Your task to perform on an android device: Clear all items from cart on costco.com. Add "logitech g502" to the cart on costco.com Image 0: 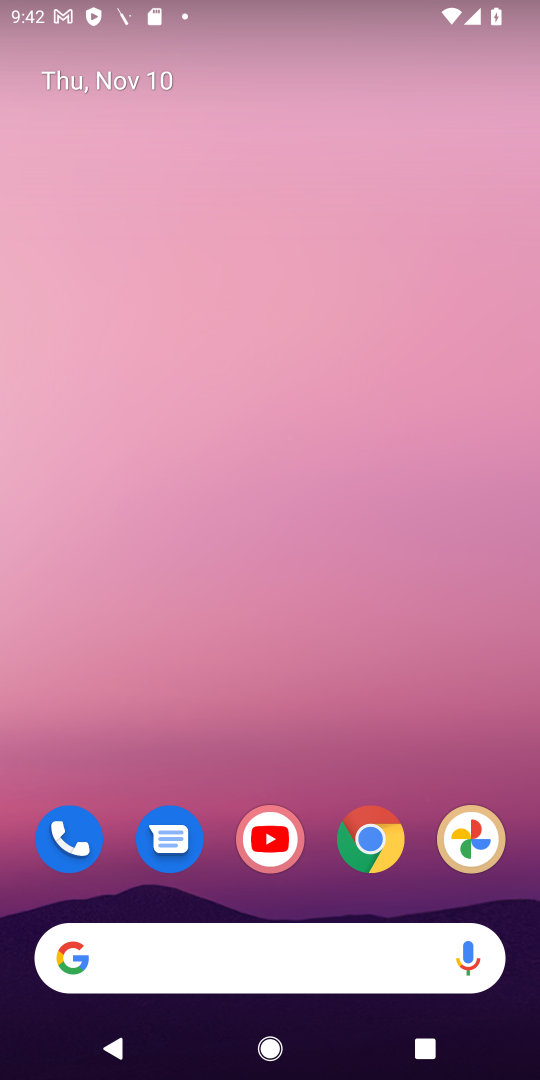
Step 0: click (374, 852)
Your task to perform on an android device: Clear all items from cart on costco.com. Add "logitech g502" to the cart on costco.com Image 1: 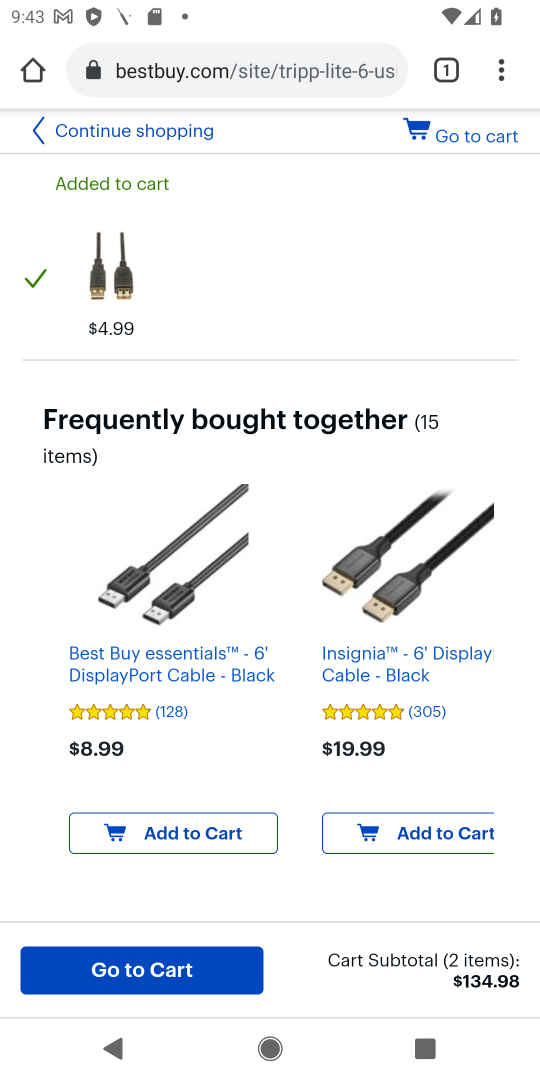
Step 1: click (286, 70)
Your task to perform on an android device: Clear all items from cart on costco.com. Add "logitech g502" to the cart on costco.com Image 2: 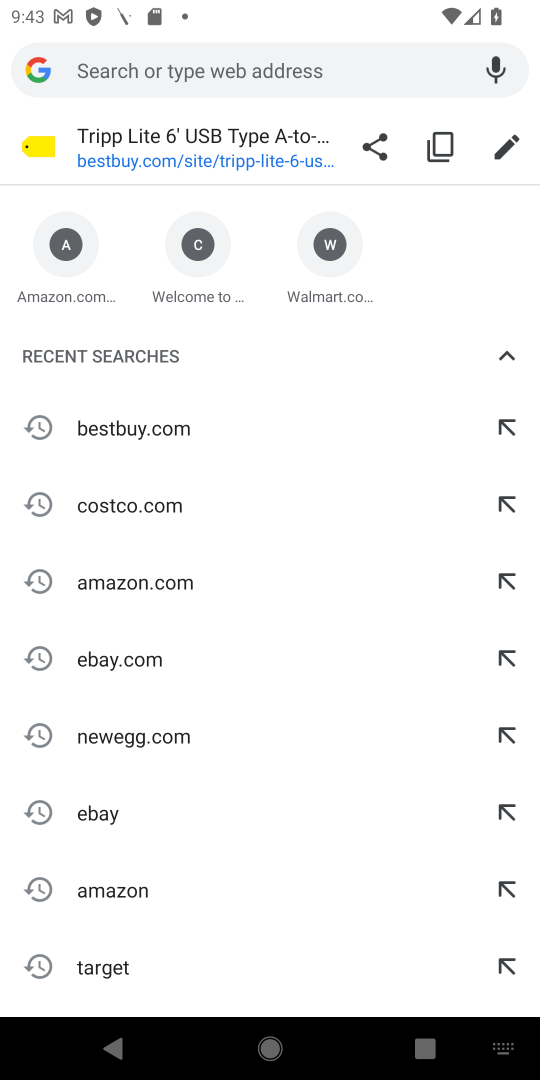
Step 2: click (147, 505)
Your task to perform on an android device: Clear all items from cart on costco.com. Add "logitech g502" to the cart on costco.com Image 3: 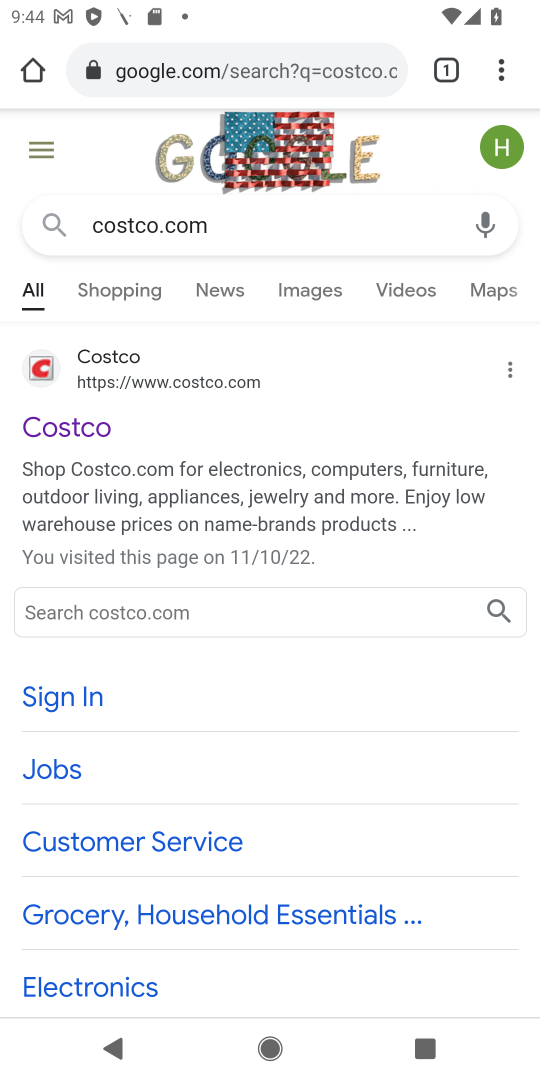
Step 3: click (193, 376)
Your task to perform on an android device: Clear all items from cart on costco.com. Add "logitech g502" to the cart on costco.com Image 4: 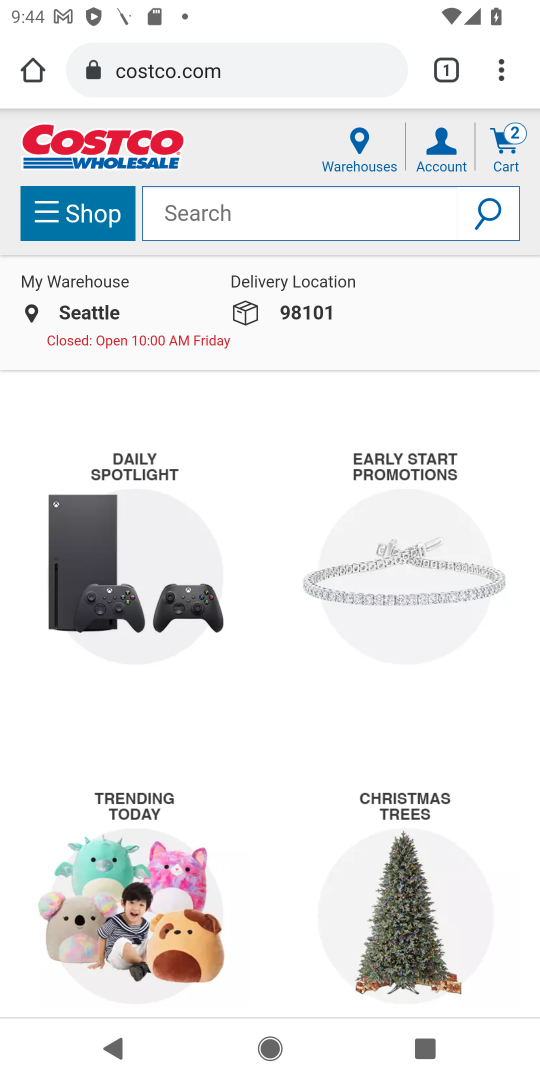
Step 4: click (504, 155)
Your task to perform on an android device: Clear all items from cart on costco.com. Add "logitech g502" to the cart on costco.com Image 5: 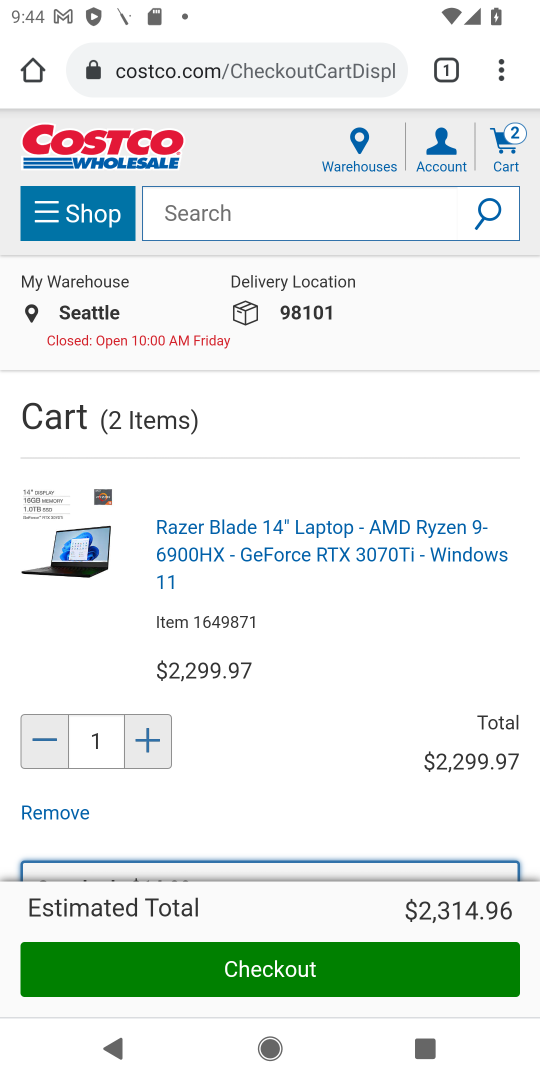
Step 5: click (40, 749)
Your task to perform on an android device: Clear all items from cart on costco.com. Add "logitech g502" to the cart on costco.com Image 6: 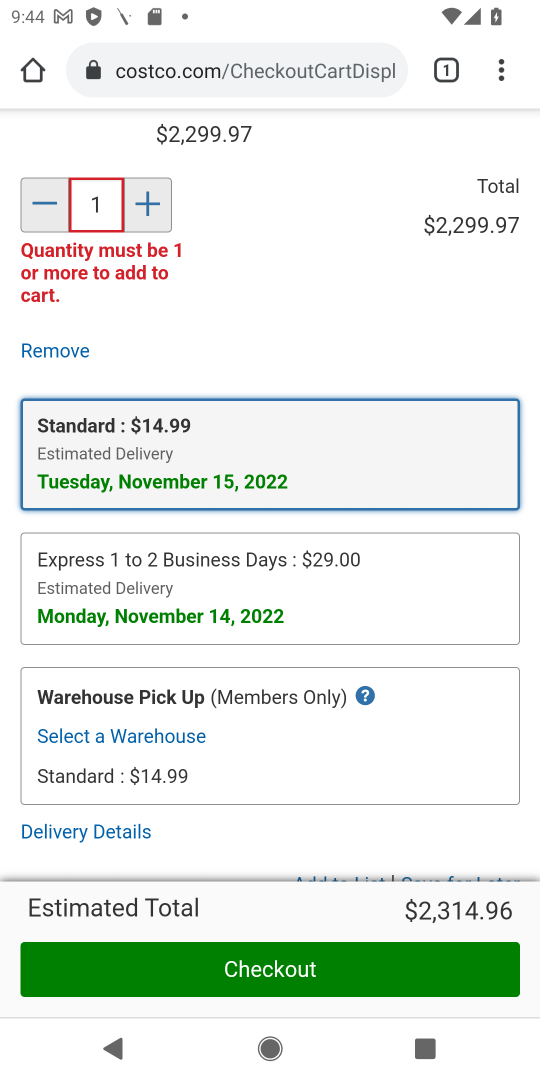
Step 6: drag from (330, 795) to (318, 900)
Your task to perform on an android device: Clear all items from cart on costco.com. Add "logitech g502" to the cart on costco.com Image 7: 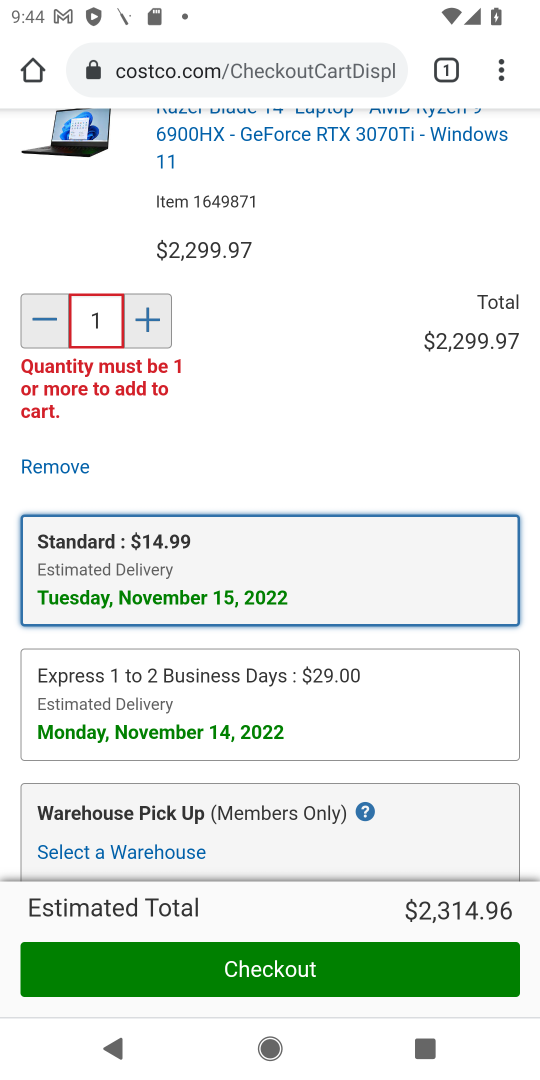
Step 7: click (65, 468)
Your task to perform on an android device: Clear all items from cart on costco.com. Add "logitech g502" to the cart on costco.com Image 8: 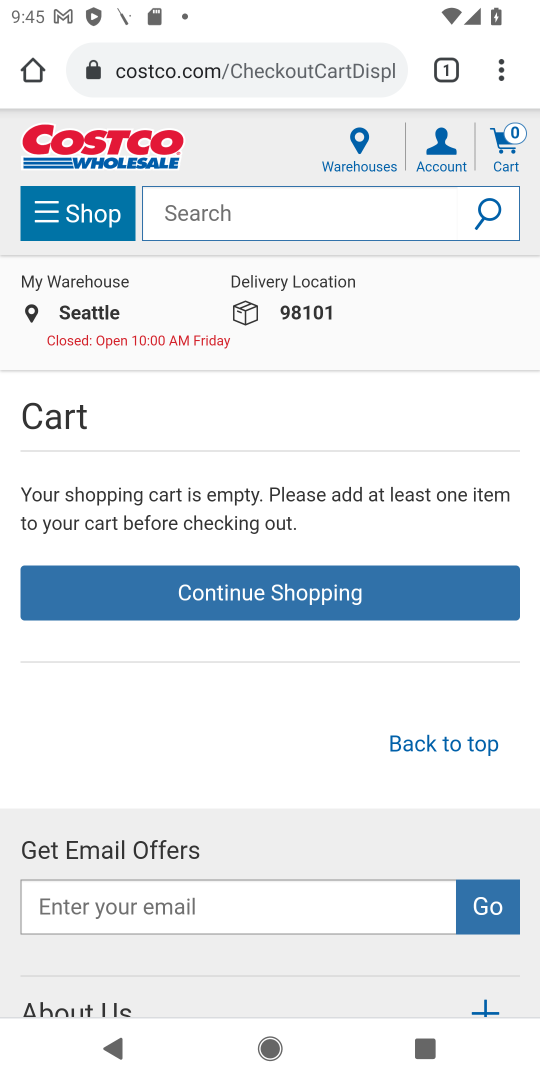
Step 8: click (258, 221)
Your task to perform on an android device: Clear all items from cart on costco.com. Add "logitech g502" to the cart on costco.com Image 9: 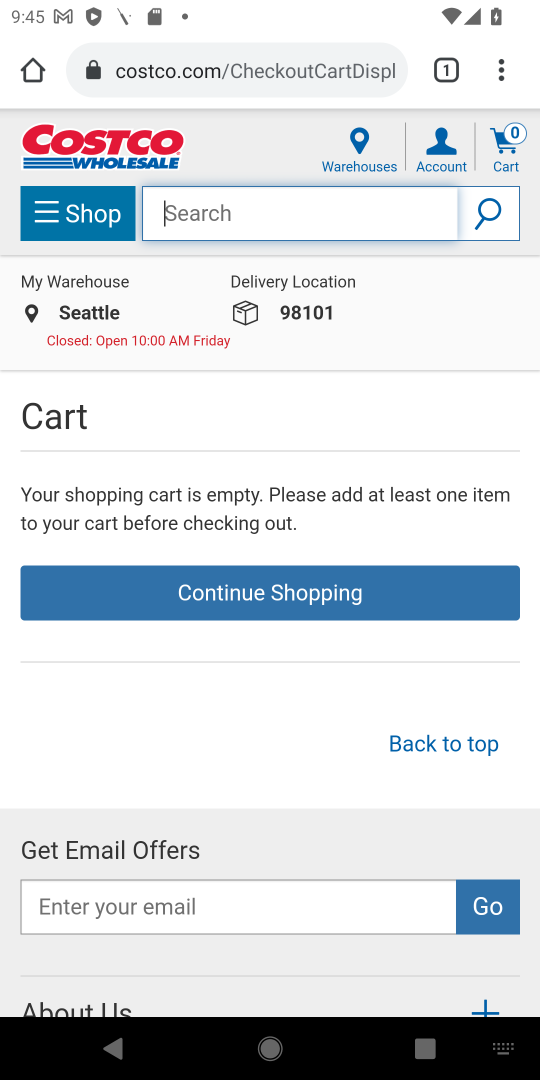
Step 9: type "logitech g502"
Your task to perform on an android device: Clear all items from cart on costco.com. Add "logitech g502" to the cart on costco.com Image 10: 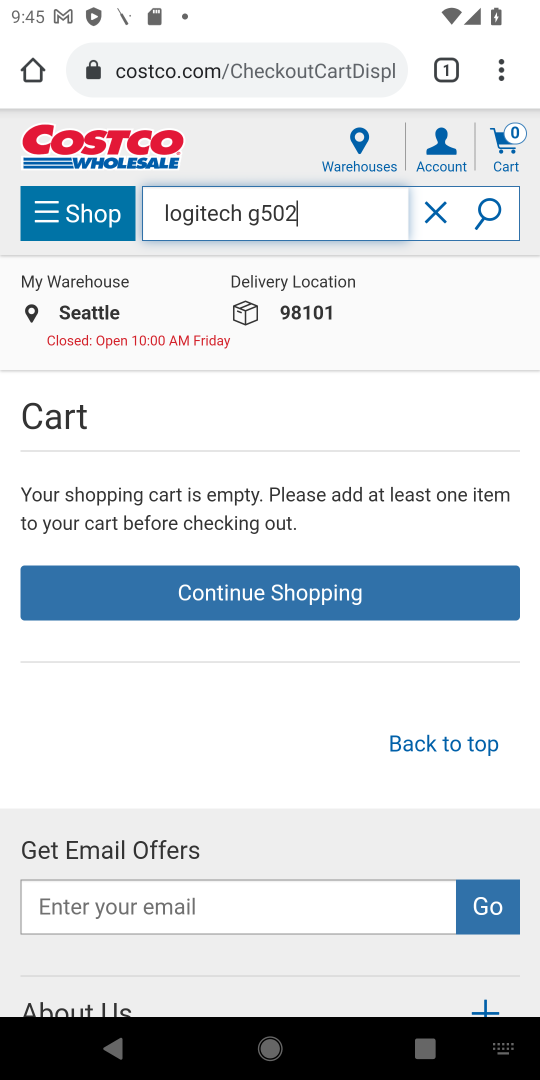
Step 10: press enter
Your task to perform on an android device: Clear all items from cart on costco.com. Add "logitech g502" to the cart on costco.com Image 11: 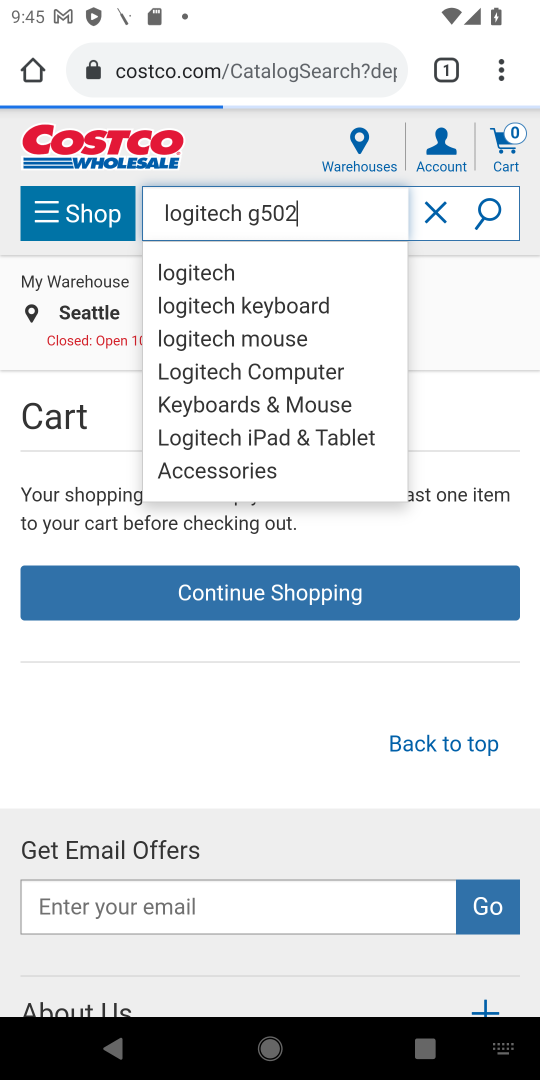
Step 11: click (476, 302)
Your task to perform on an android device: Clear all items from cart on costco.com. Add "logitech g502" to the cart on costco.com Image 12: 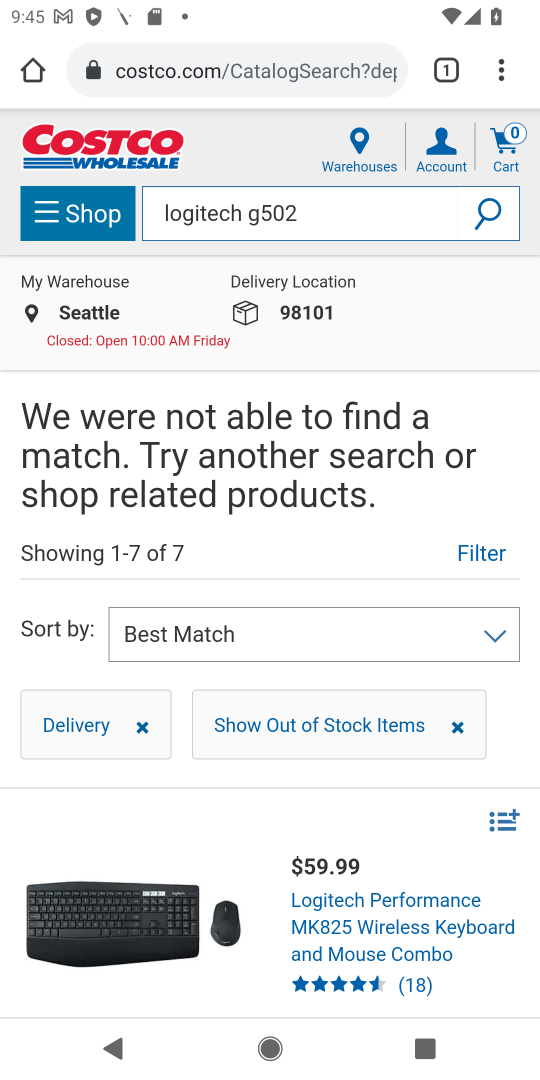
Step 12: task complete